Your task to perform on an android device: Go to CNN.com Image 0: 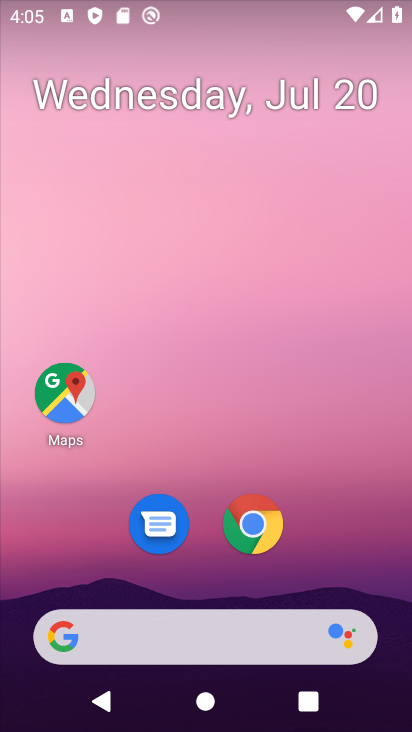
Step 0: click (331, 523)
Your task to perform on an android device: Go to CNN.com Image 1: 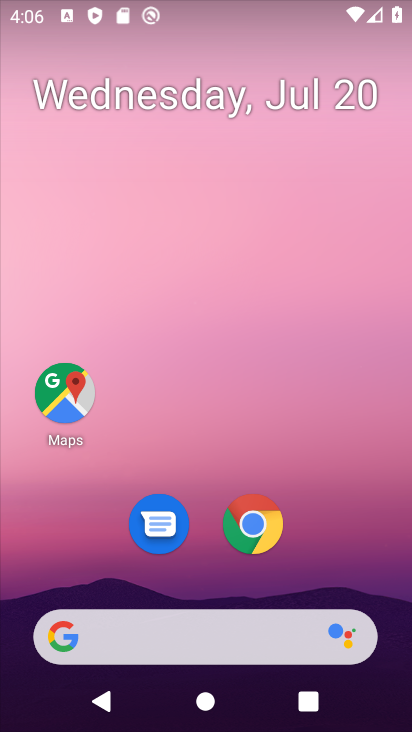
Step 1: click (211, 633)
Your task to perform on an android device: Go to CNN.com Image 2: 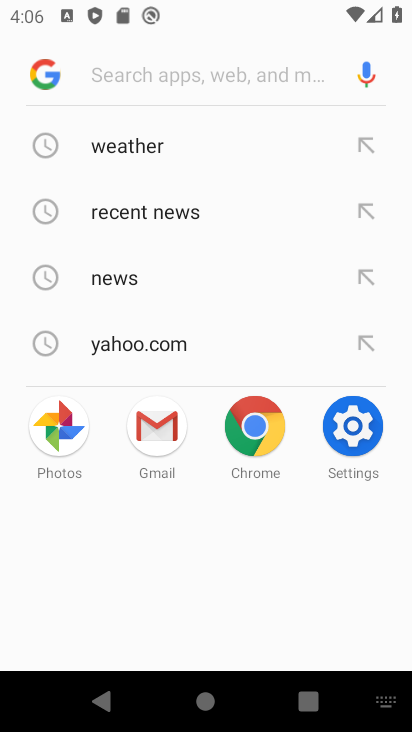
Step 2: type "cnn.com"
Your task to perform on an android device: Go to CNN.com Image 3: 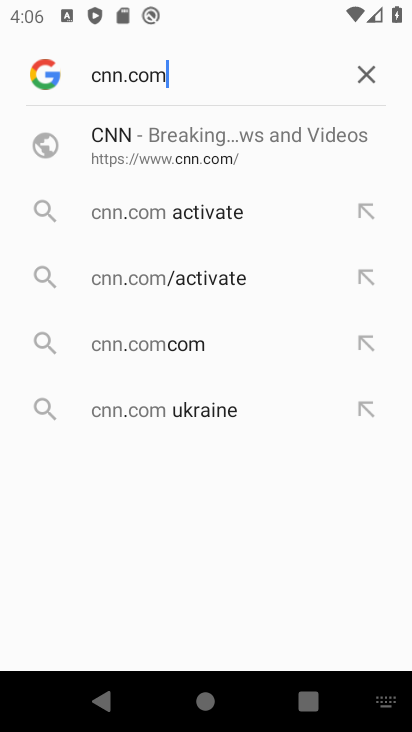
Step 3: click (171, 143)
Your task to perform on an android device: Go to CNN.com Image 4: 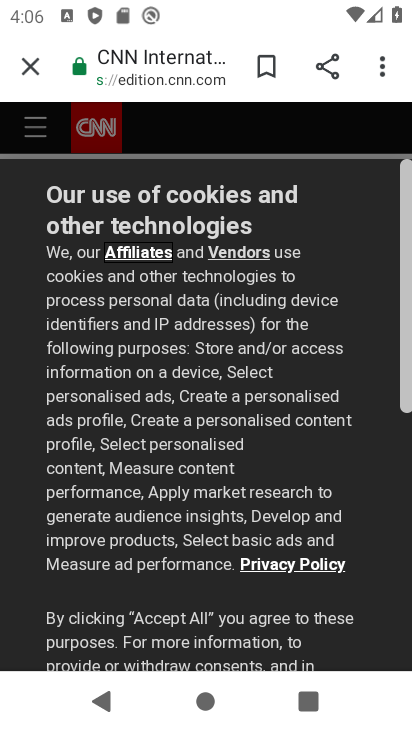
Step 4: task complete